Your task to perform on an android device: visit the assistant section in the google photos Image 0: 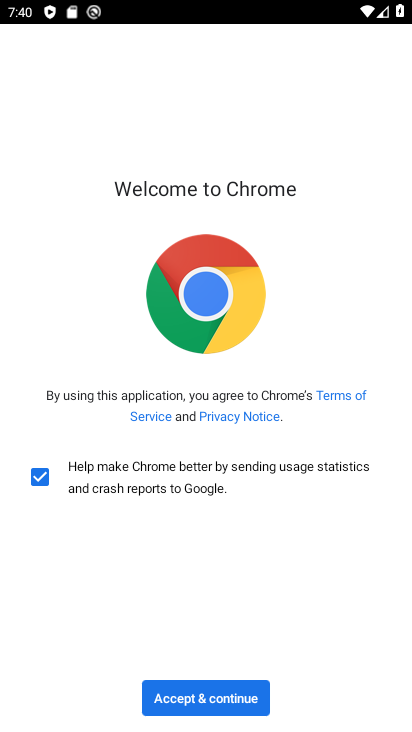
Step 0: press home button
Your task to perform on an android device: visit the assistant section in the google photos Image 1: 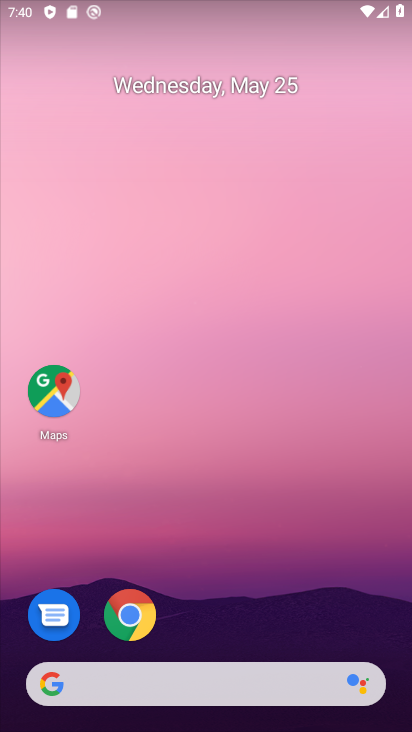
Step 1: drag from (290, 565) to (310, 40)
Your task to perform on an android device: visit the assistant section in the google photos Image 2: 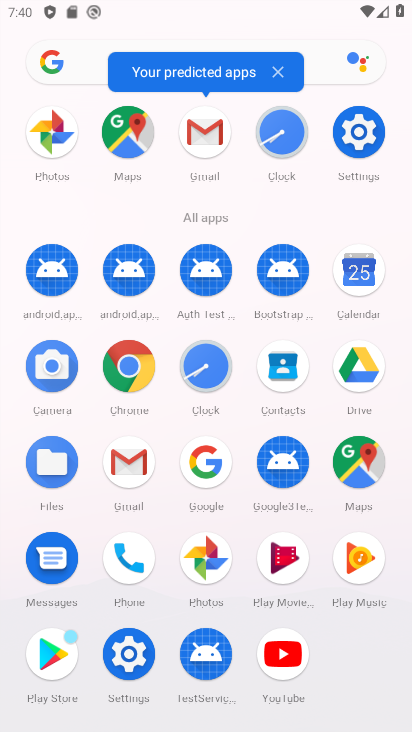
Step 2: click (61, 131)
Your task to perform on an android device: visit the assistant section in the google photos Image 3: 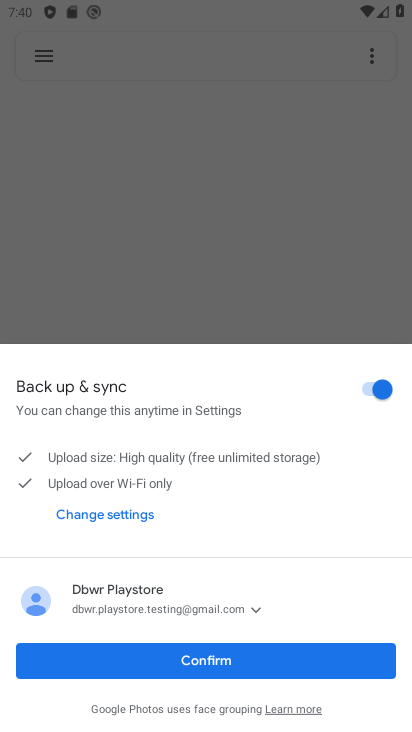
Step 3: click (196, 659)
Your task to perform on an android device: visit the assistant section in the google photos Image 4: 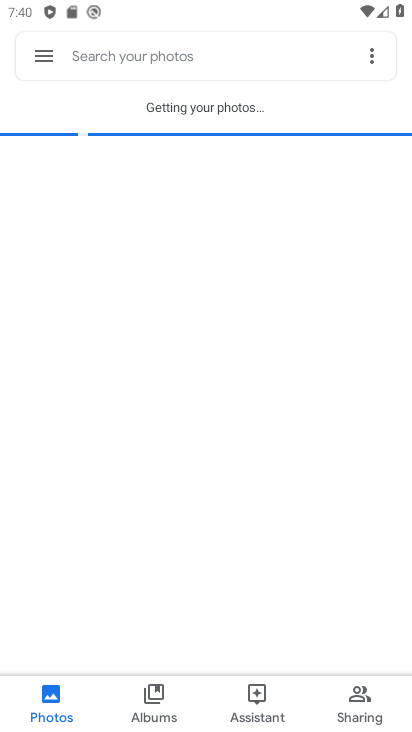
Step 4: click (259, 703)
Your task to perform on an android device: visit the assistant section in the google photos Image 5: 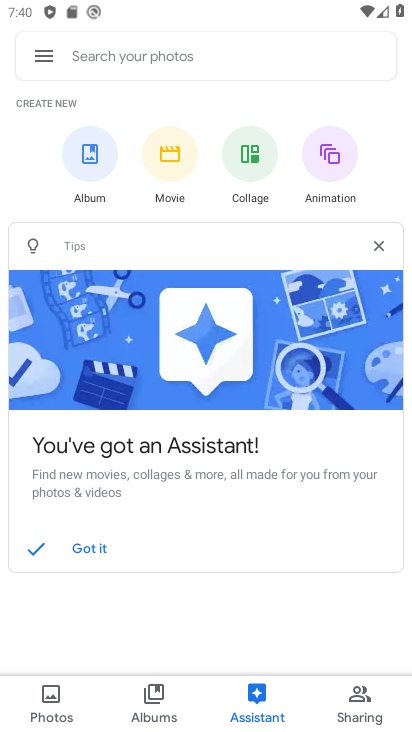
Step 5: task complete